Your task to perform on an android device: When is my next meeting? Image 0: 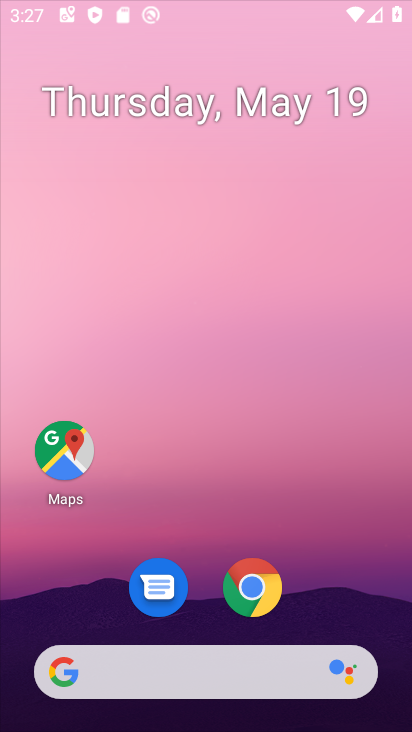
Step 0: press home button
Your task to perform on an android device: When is my next meeting? Image 1: 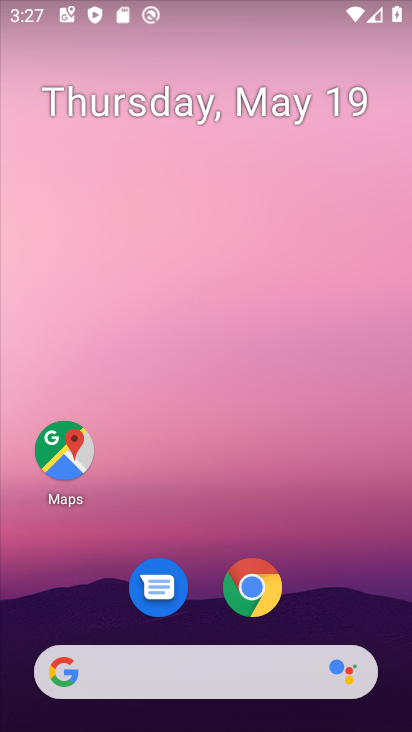
Step 1: drag from (358, 601) to (358, 212)
Your task to perform on an android device: When is my next meeting? Image 2: 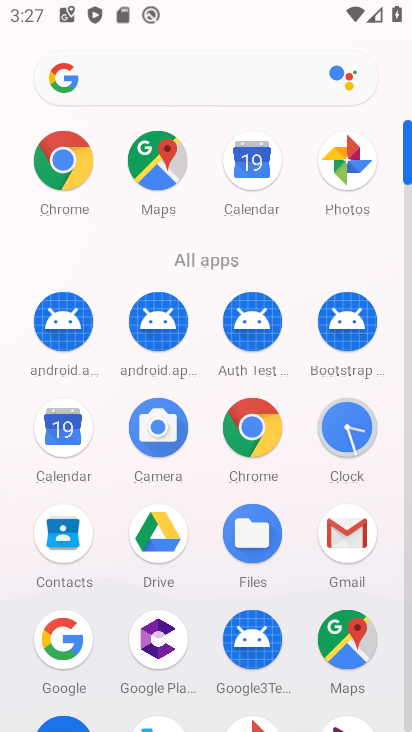
Step 2: click (69, 448)
Your task to perform on an android device: When is my next meeting? Image 3: 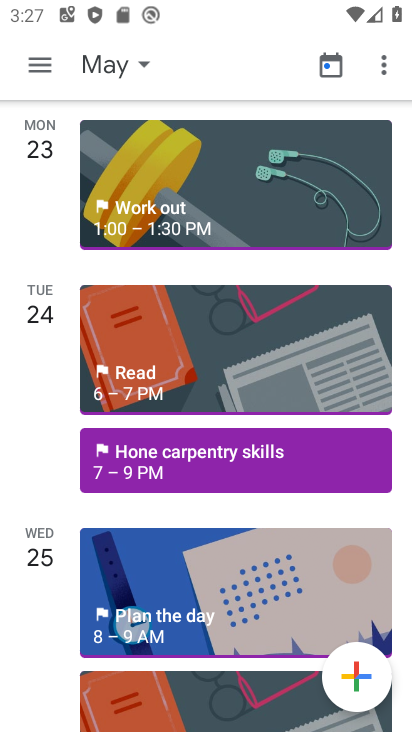
Step 3: click (138, 56)
Your task to perform on an android device: When is my next meeting? Image 4: 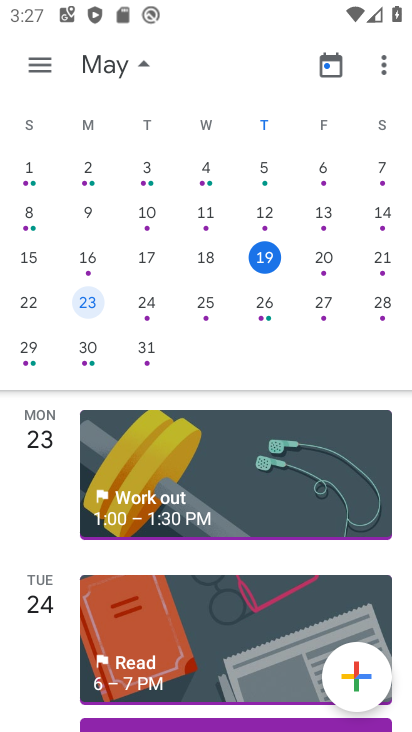
Step 4: click (320, 262)
Your task to perform on an android device: When is my next meeting? Image 5: 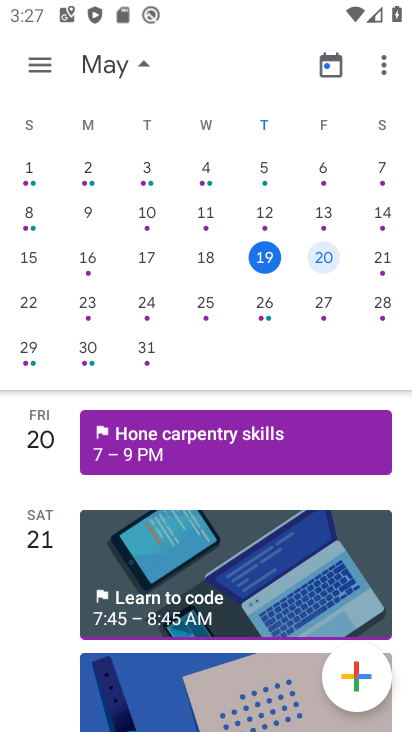
Step 5: click (248, 434)
Your task to perform on an android device: When is my next meeting? Image 6: 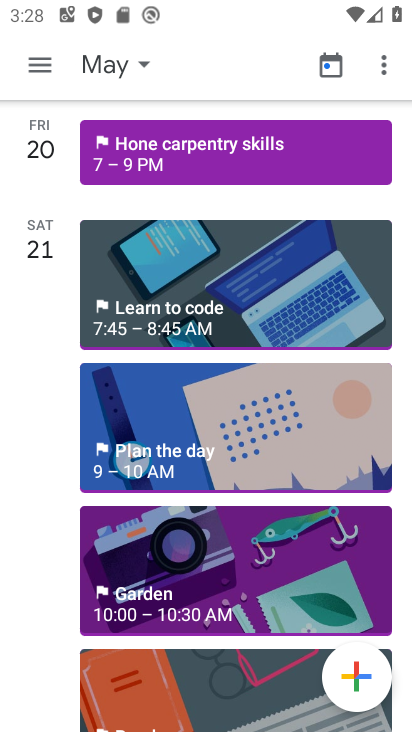
Step 6: click (231, 252)
Your task to perform on an android device: When is my next meeting? Image 7: 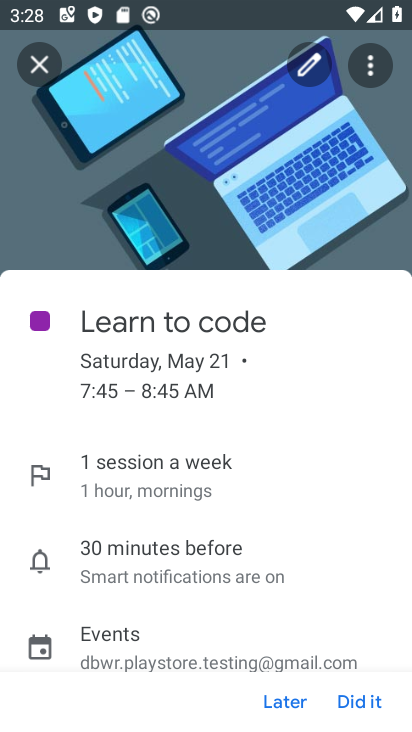
Step 7: task complete